Your task to perform on an android device: Go to Android settings Image 0: 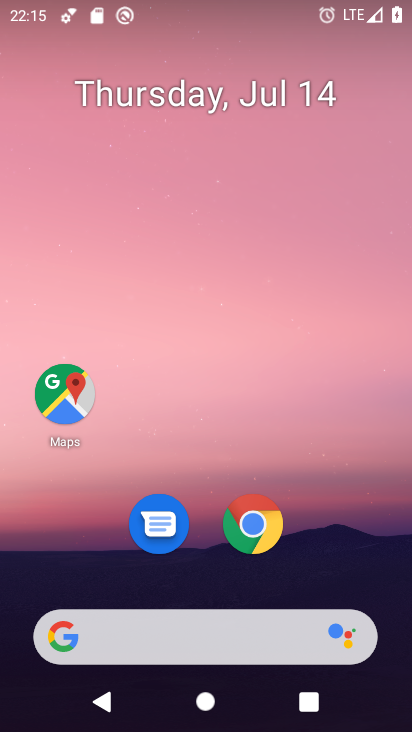
Step 0: drag from (349, 557) to (318, 20)
Your task to perform on an android device: Go to Android settings Image 1: 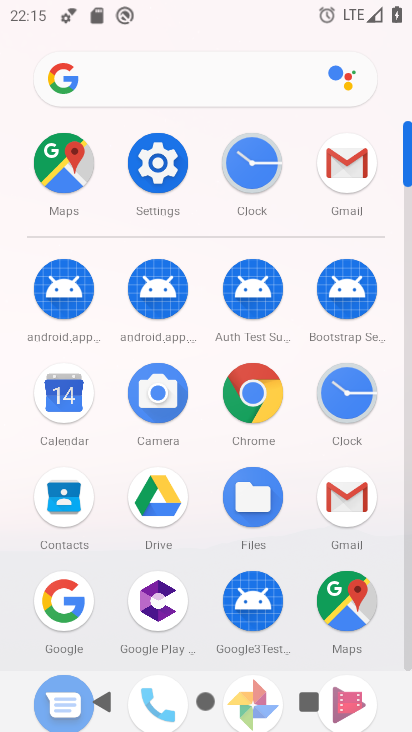
Step 1: click (161, 159)
Your task to perform on an android device: Go to Android settings Image 2: 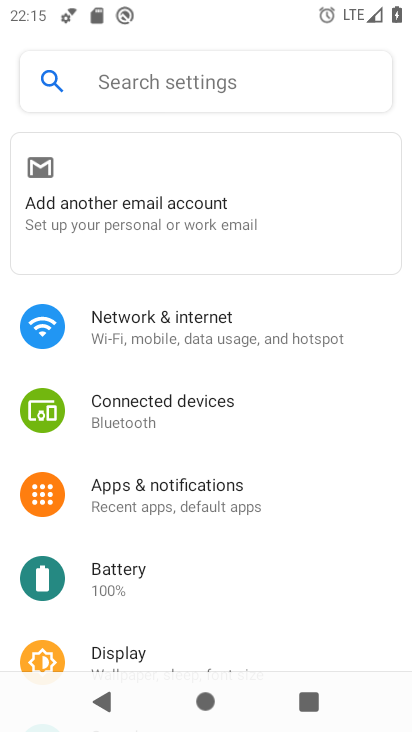
Step 2: drag from (194, 574) to (215, 37)
Your task to perform on an android device: Go to Android settings Image 3: 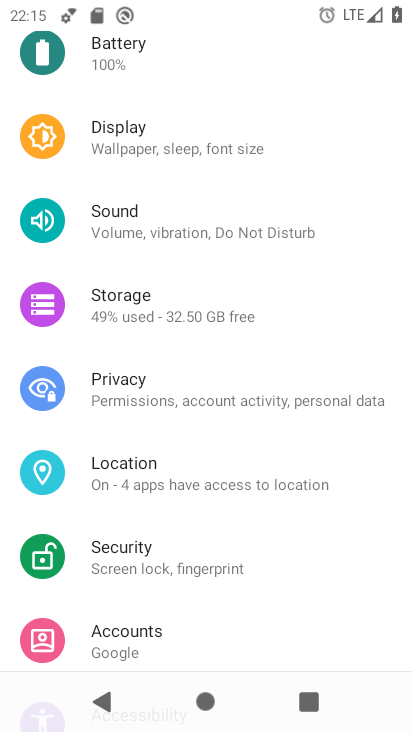
Step 3: drag from (215, 536) to (234, 157)
Your task to perform on an android device: Go to Android settings Image 4: 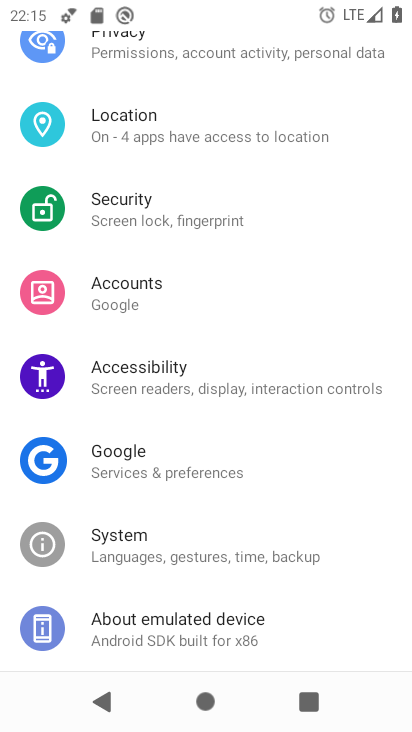
Step 4: click (220, 622)
Your task to perform on an android device: Go to Android settings Image 5: 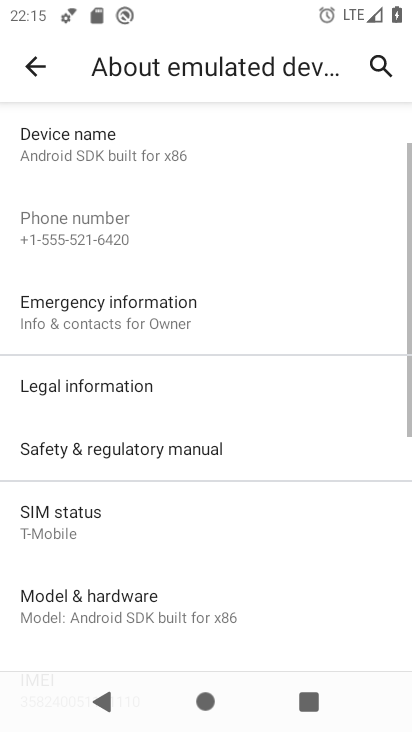
Step 5: task complete